Your task to perform on an android device: turn vacation reply on in the gmail app Image 0: 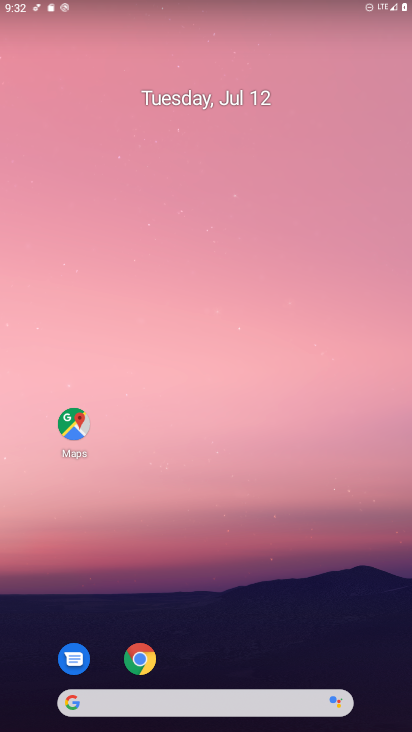
Step 0: drag from (189, 693) to (215, 67)
Your task to perform on an android device: turn vacation reply on in the gmail app Image 1: 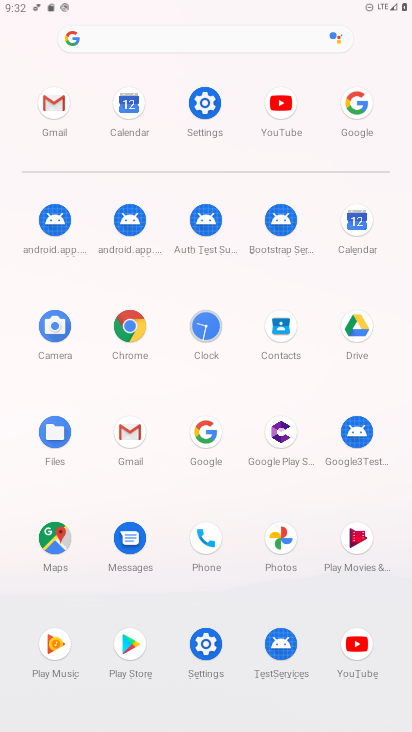
Step 1: click (51, 100)
Your task to perform on an android device: turn vacation reply on in the gmail app Image 2: 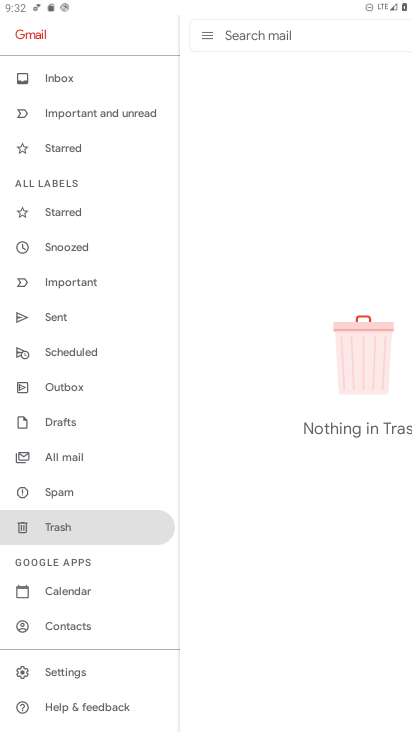
Step 2: click (70, 672)
Your task to perform on an android device: turn vacation reply on in the gmail app Image 3: 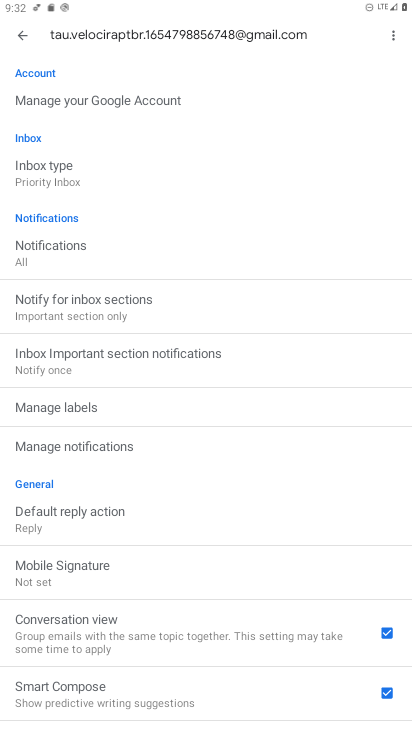
Step 3: drag from (117, 694) to (232, 494)
Your task to perform on an android device: turn vacation reply on in the gmail app Image 4: 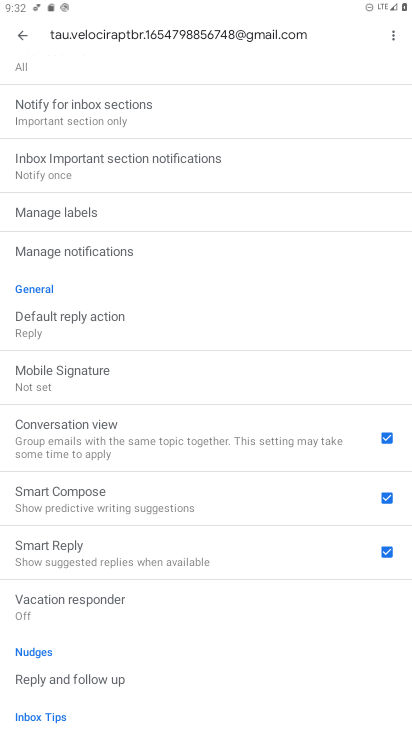
Step 4: click (114, 609)
Your task to perform on an android device: turn vacation reply on in the gmail app Image 5: 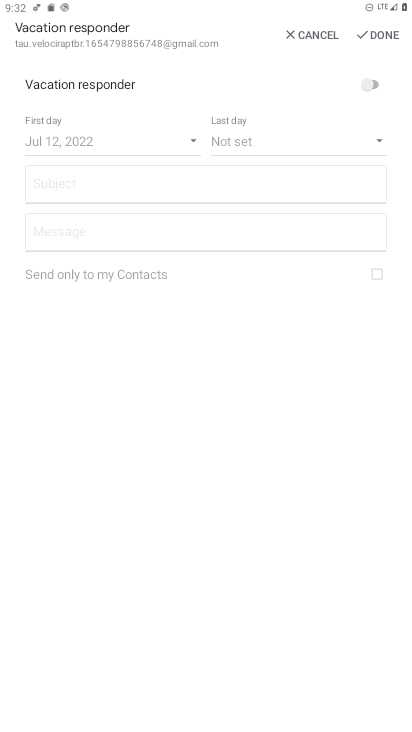
Step 5: click (378, 87)
Your task to perform on an android device: turn vacation reply on in the gmail app Image 6: 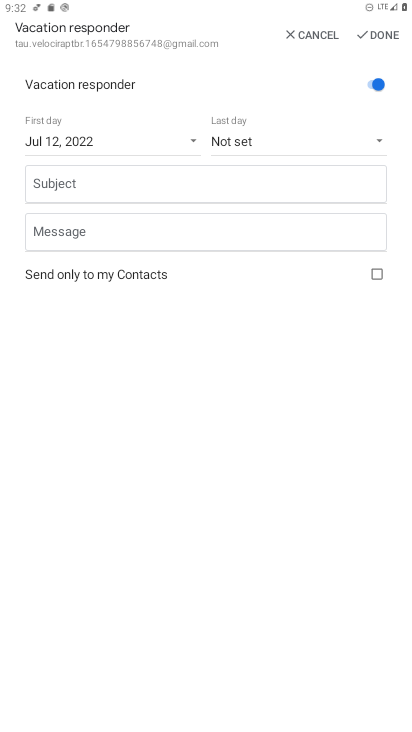
Step 6: task complete